Your task to perform on an android device: Open Amazon Image 0: 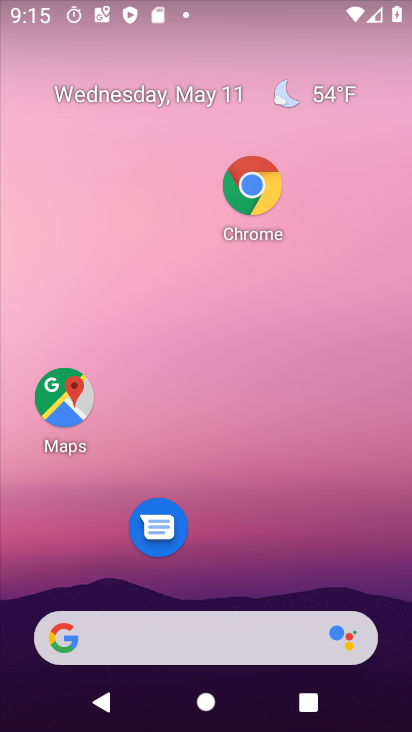
Step 0: click (251, 186)
Your task to perform on an android device: Open Amazon Image 1: 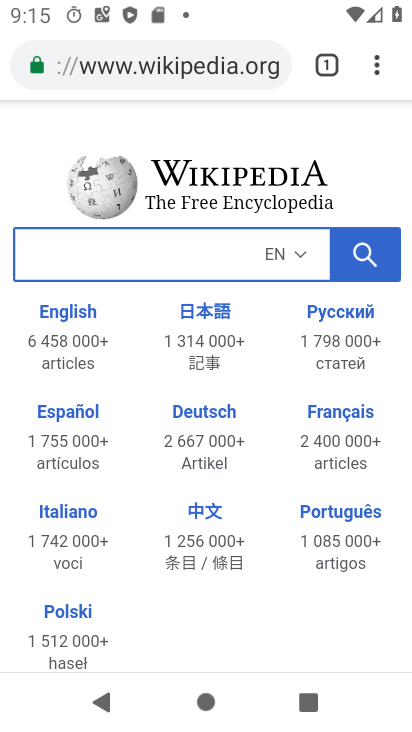
Step 1: press back button
Your task to perform on an android device: Open Amazon Image 2: 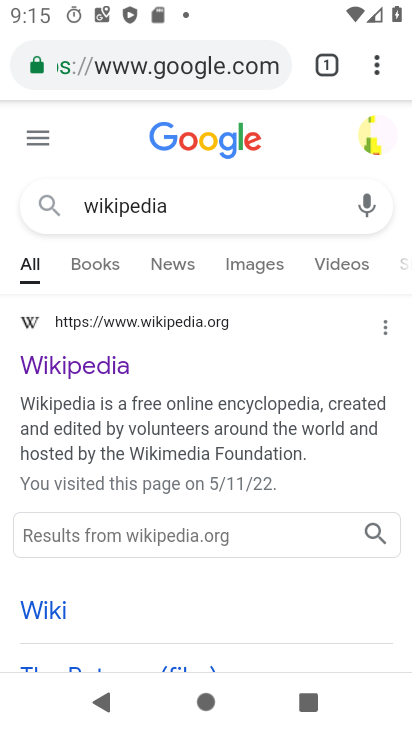
Step 2: press back button
Your task to perform on an android device: Open Amazon Image 3: 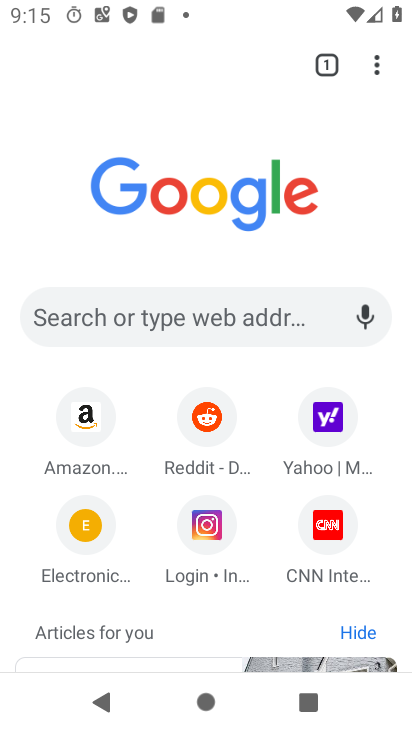
Step 3: click (80, 418)
Your task to perform on an android device: Open Amazon Image 4: 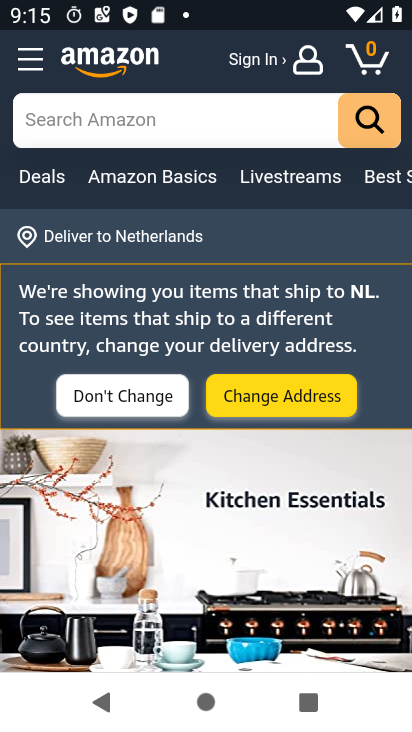
Step 4: task complete